Your task to perform on an android device: set default search engine in the chrome app Image 0: 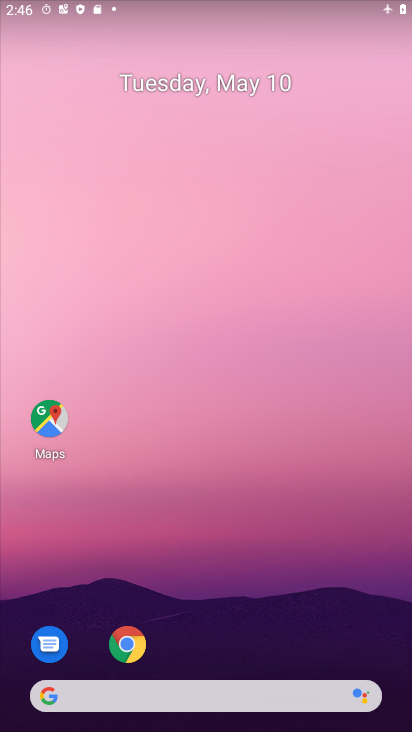
Step 0: drag from (209, 675) to (246, 223)
Your task to perform on an android device: set default search engine in the chrome app Image 1: 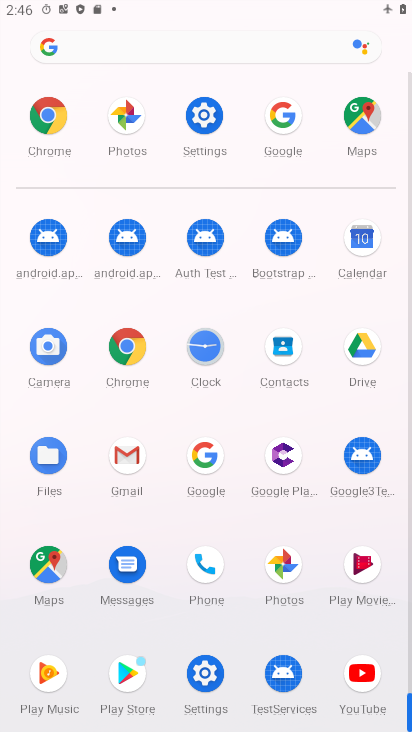
Step 1: click (116, 340)
Your task to perform on an android device: set default search engine in the chrome app Image 2: 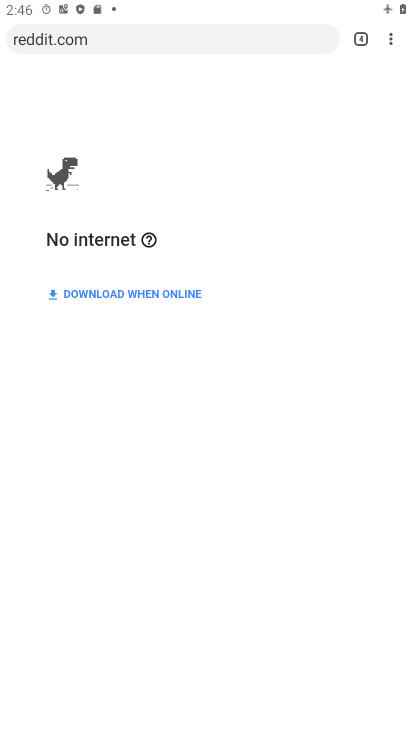
Step 2: click (392, 43)
Your task to perform on an android device: set default search engine in the chrome app Image 3: 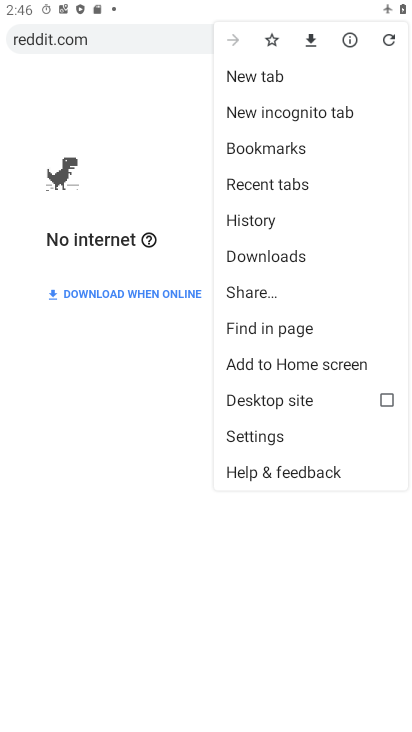
Step 3: click (299, 440)
Your task to perform on an android device: set default search engine in the chrome app Image 4: 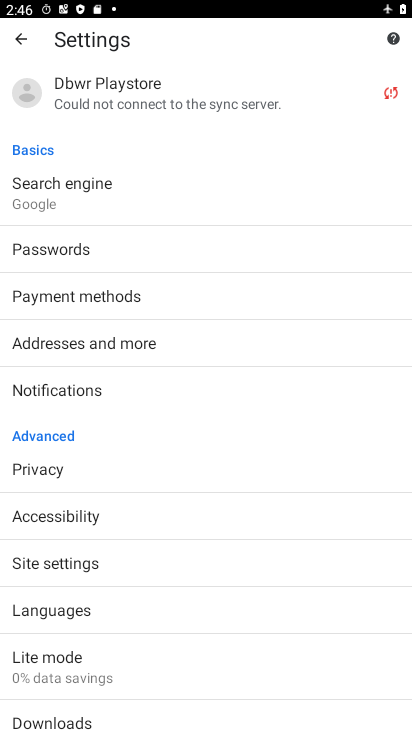
Step 4: click (142, 202)
Your task to perform on an android device: set default search engine in the chrome app Image 5: 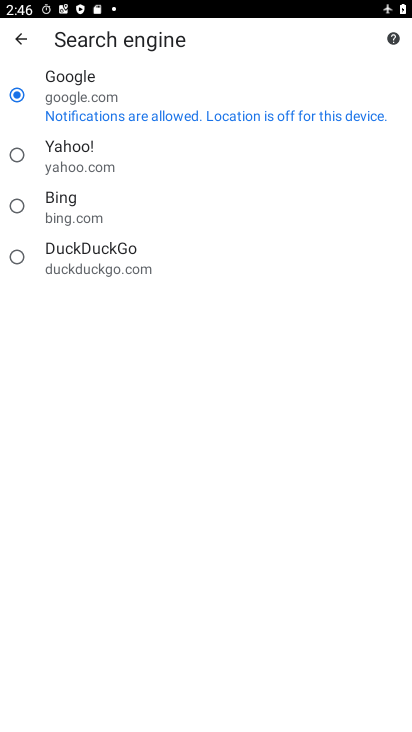
Step 5: task complete